Your task to perform on an android device: Is it going to rain tomorrow? Image 0: 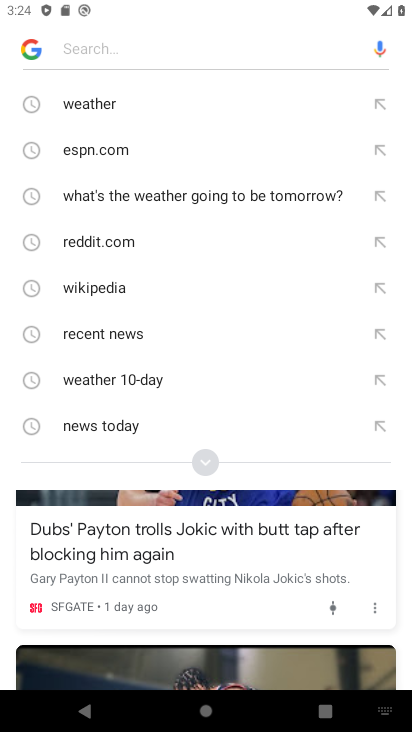
Step 0: type "rain tomorrow"
Your task to perform on an android device: Is it going to rain tomorrow? Image 1: 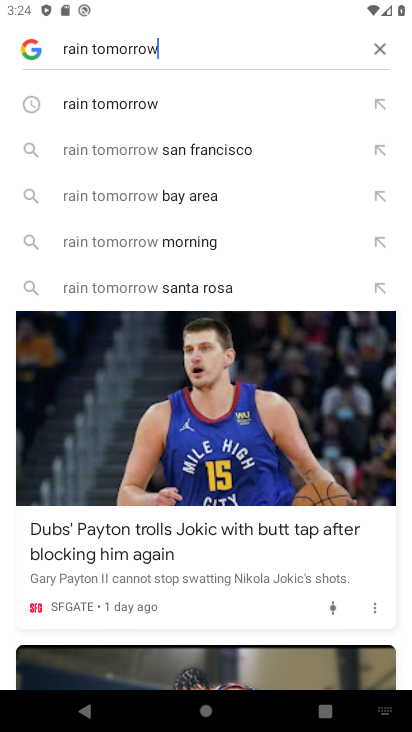
Step 1: click (123, 95)
Your task to perform on an android device: Is it going to rain tomorrow? Image 2: 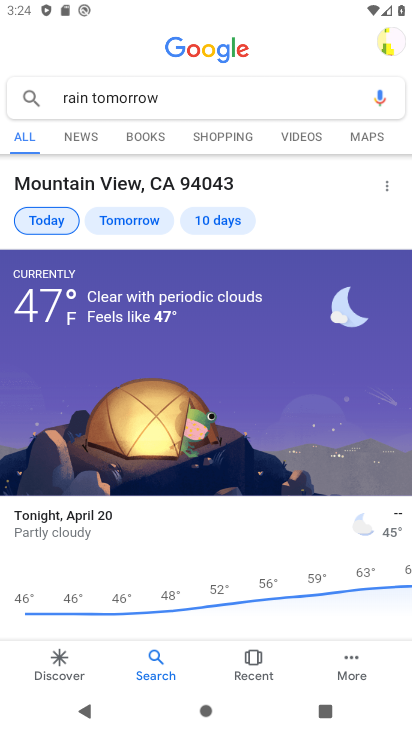
Step 2: task complete